Your task to perform on an android device: Open Wikipedia Image 0: 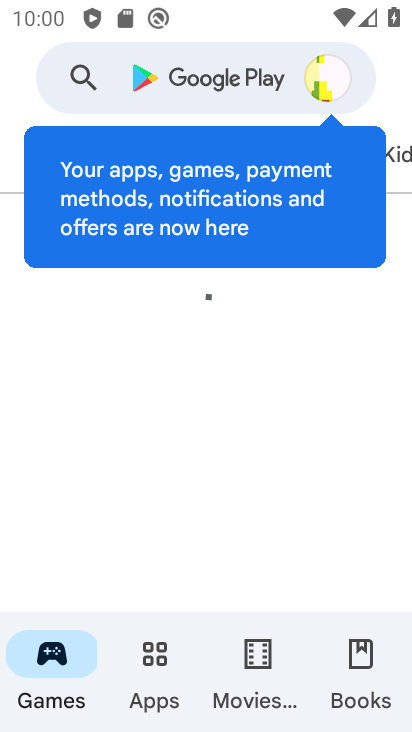
Step 0: press home button
Your task to perform on an android device: Open Wikipedia Image 1: 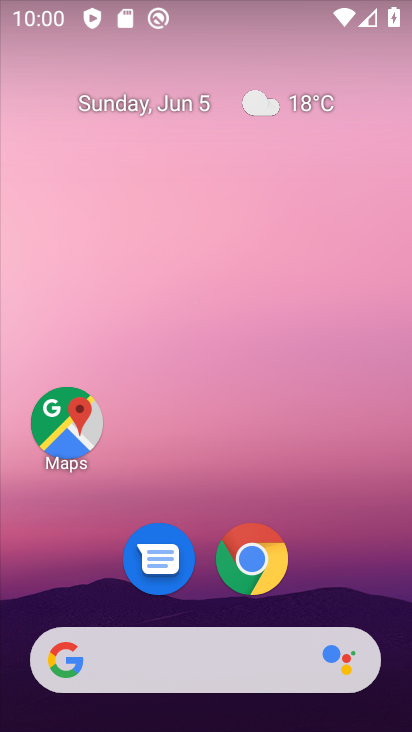
Step 1: drag from (337, 586) to (333, 65)
Your task to perform on an android device: Open Wikipedia Image 2: 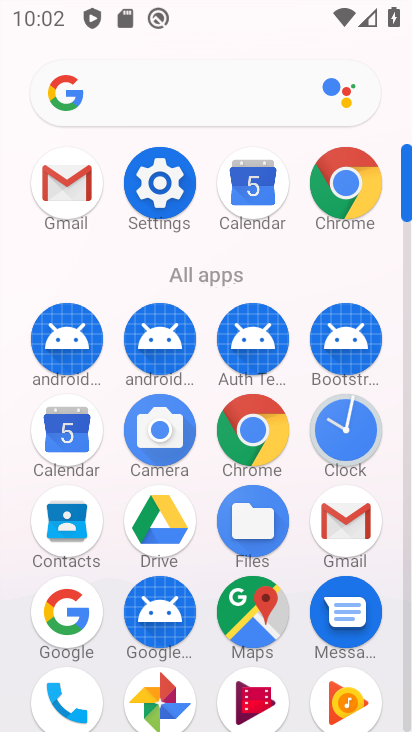
Step 2: click (240, 426)
Your task to perform on an android device: Open Wikipedia Image 3: 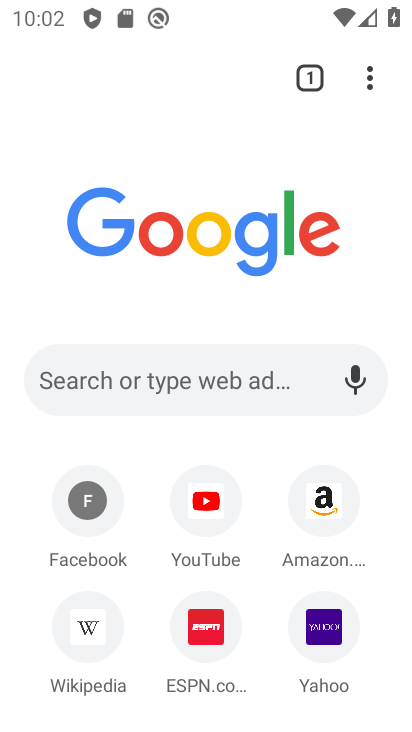
Step 3: click (83, 628)
Your task to perform on an android device: Open Wikipedia Image 4: 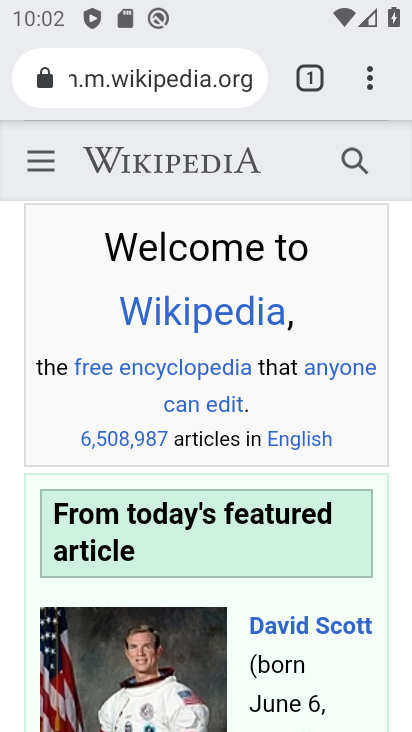
Step 4: task complete